Your task to perform on an android device: When is my next meeting? Image 0: 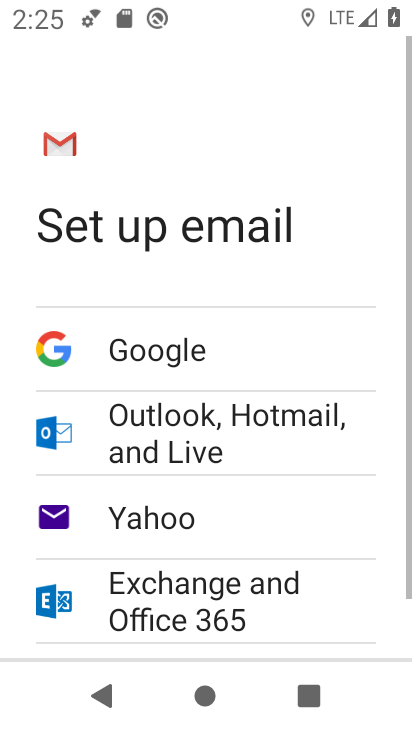
Step 0: press home button
Your task to perform on an android device: When is my next meeting? Image 1: 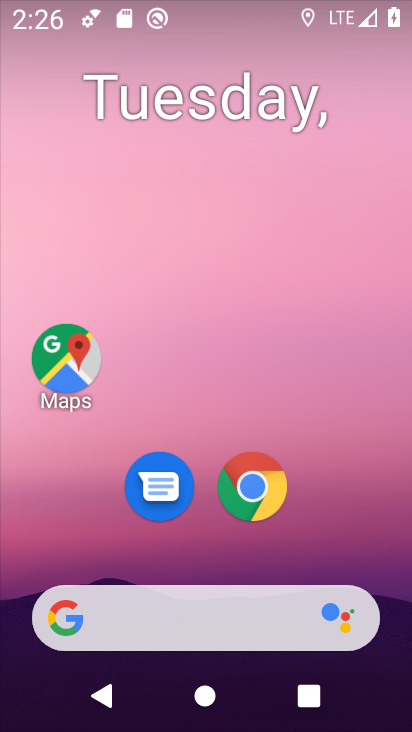
Step 1: drag from (357, 517) to (309, 51)
Your task to perform on an android device: When is my next meeting? Image 2: 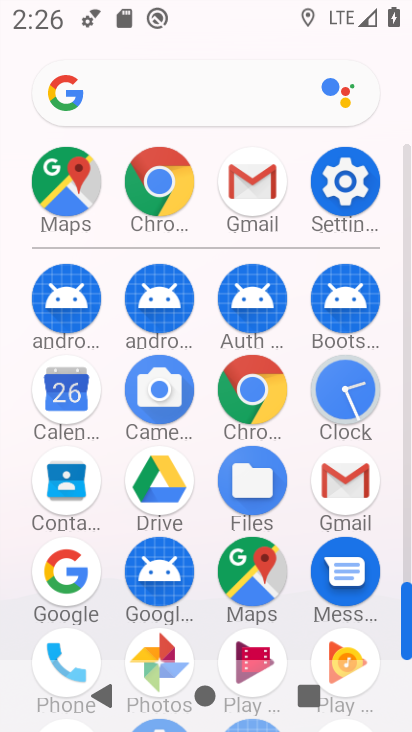
Step 2: click (74, 388)
Your task to perform on an android device: When is my next meeting? Image 3: 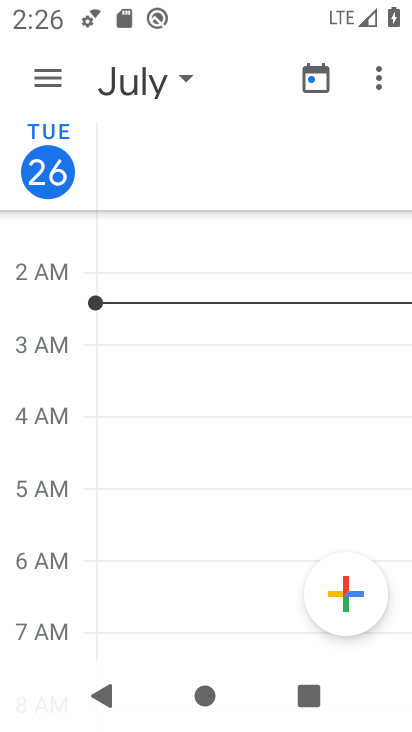
Step 3: click (47, 81)
Your task to perform on an android device: When is my next meeting? Image 4: 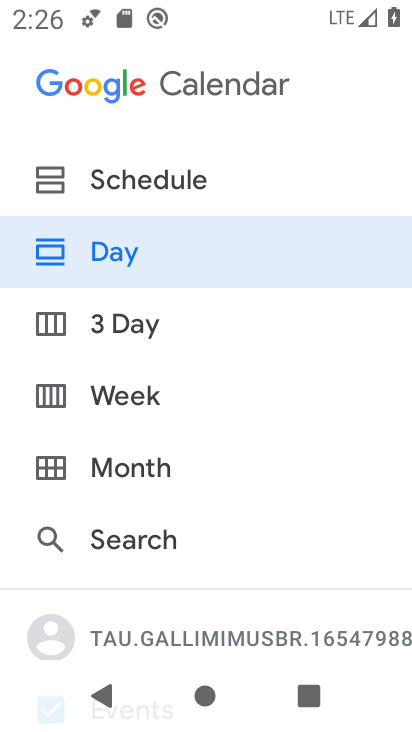
Step 4: click (304, 195)
Your task to perform on an android device: When is my next meeting? Image 5: 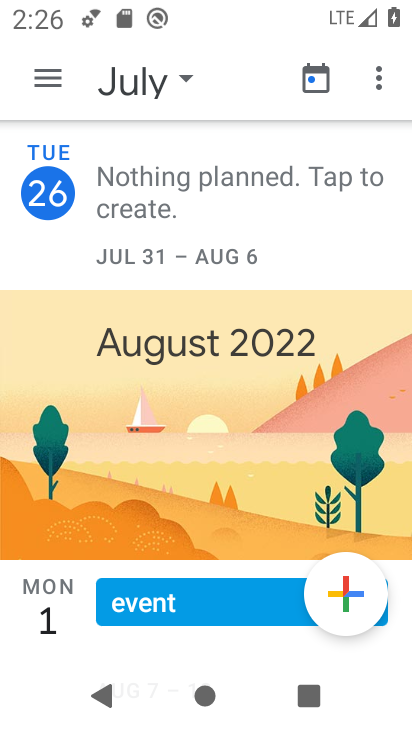
Step 5: click (213, 605)
Your task to perform on an android device: When is my next meeting? Image 6: 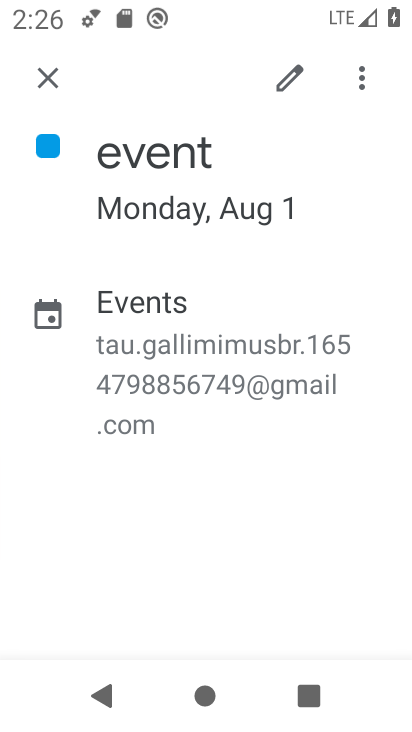
Step 6: task complete